Your task to perform on an android device: change alarm snooze length Image 0: 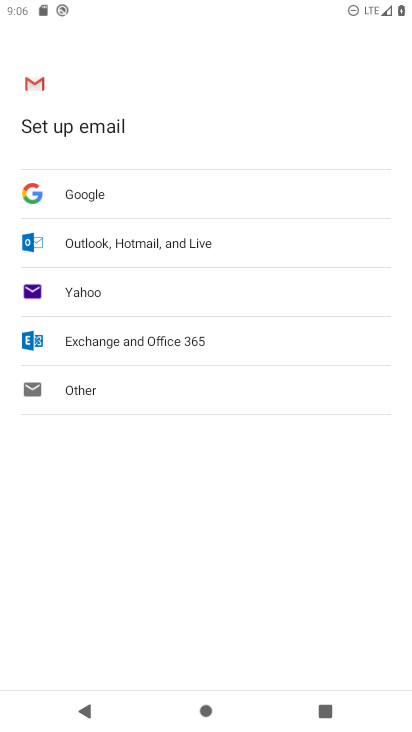
Step 0: press home button
Your task to perform on an android device: change alarm snooze length Image 1: 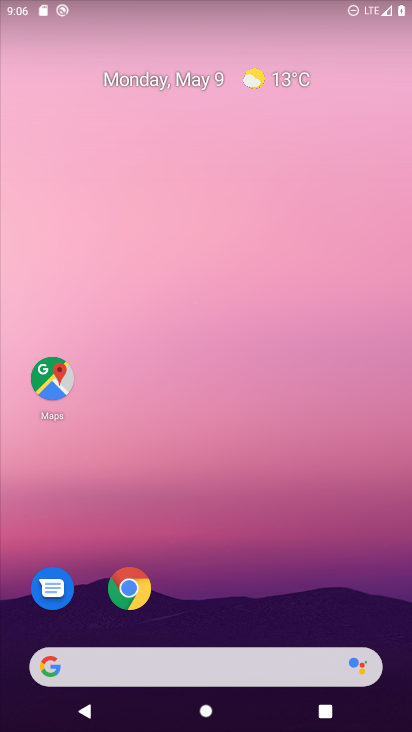
Step 1: drag from (278, 569) to (264, 206)
Your task to perform on an android device: change alarm snooze length Image 2: 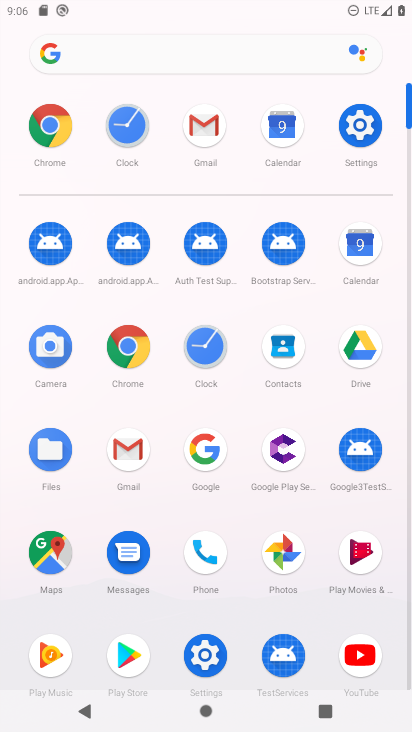
Step 2: click (202, 342)
Your task to perform on an android device: change alarm snooze length Image 3: 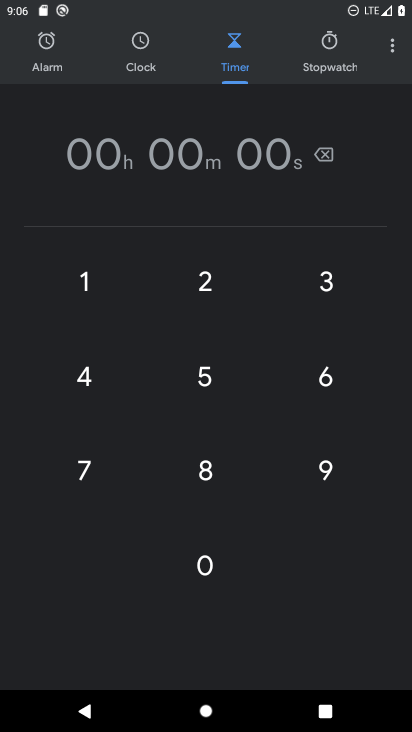
Step 3: click (374, 58)
Your task to perform on an android device: change alarm snooze length Image 4: 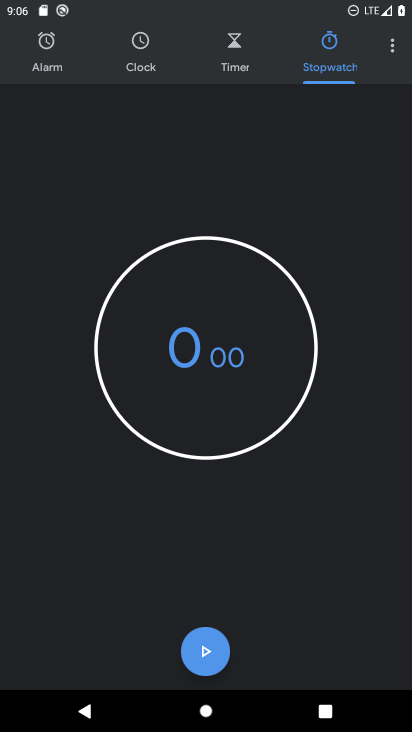
Step 4: click (387, 56)
Your task to perform on an android device: change alarm snooze length Image 5: 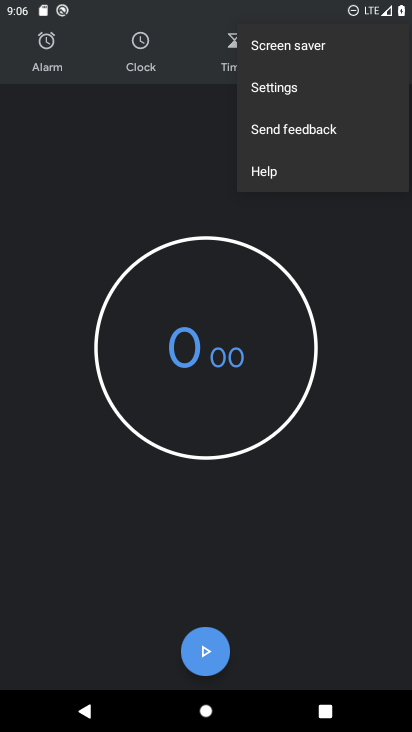
Step 5: click (291, 99)
Your task to perform on an android device: change alarm snooze length Image 6: 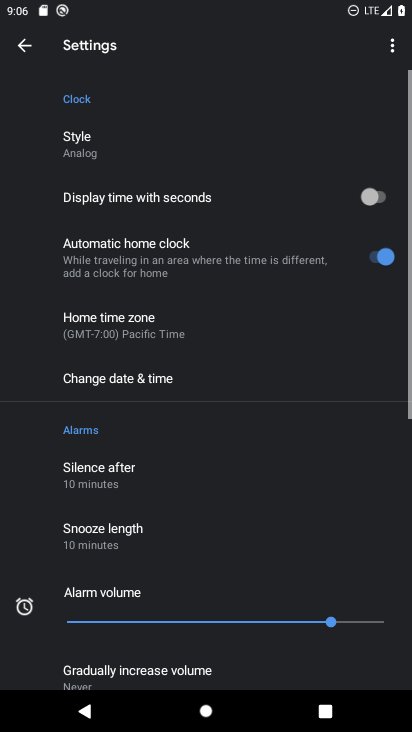
Step 6: drag from (190, 576) to (225, 250)
Your task to perform on an android device: change alarm snooze length Image 7: 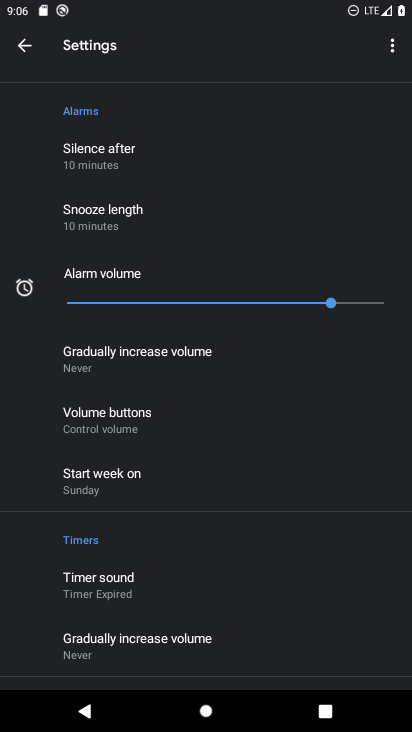
Step 7: click (194, 228)
Your task to perform on an android device: change alarm snooze length Image 8: 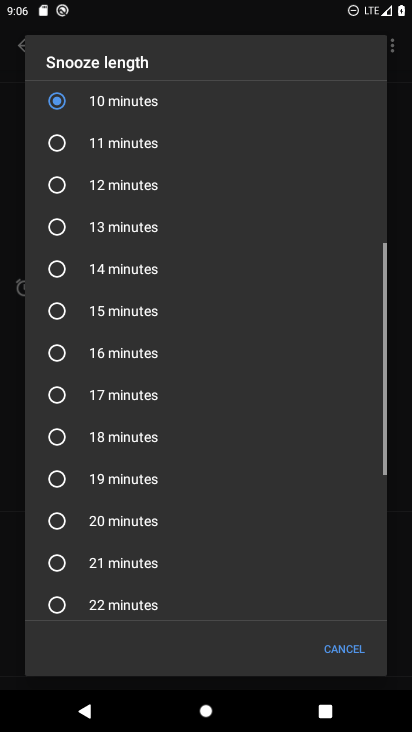
Step 8: click (208, 393)
Your task to perform on an android device: change alarm snooze length Image 9: 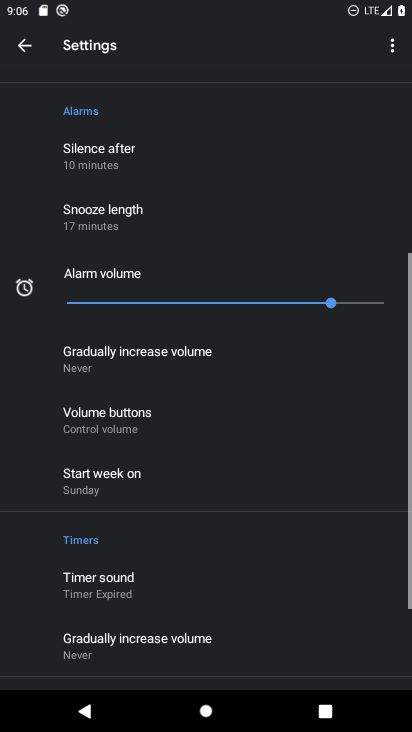
Step 9: task complete